Your task to perform on an android device: check google app version Image 0: 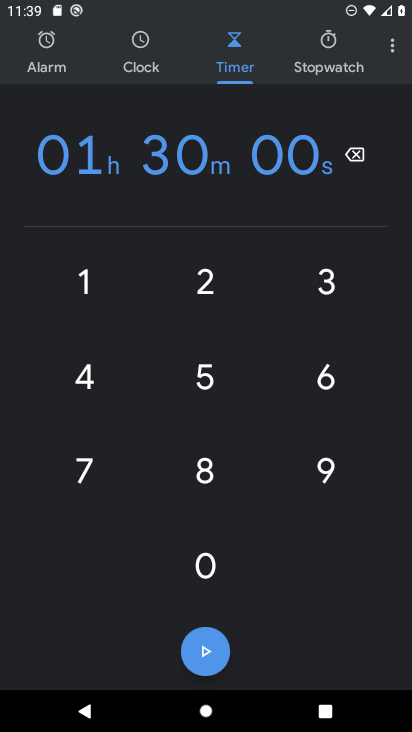
Step 0: press home button
Your task to perform on an android device: check google app version Image 1: 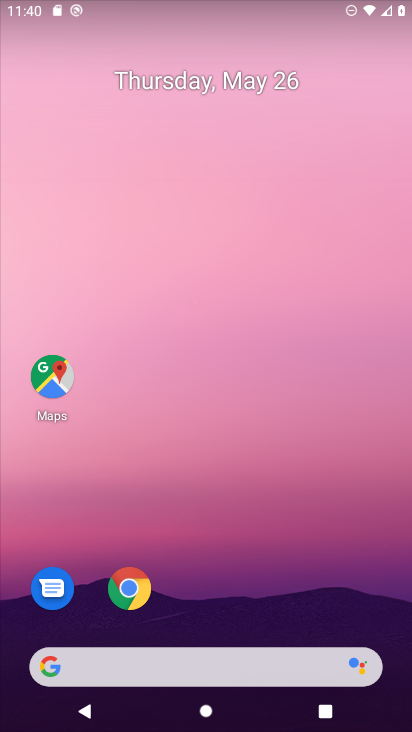
Step 1: click (128, 587)
Your task to perform on an android device: check google app version Image 2: 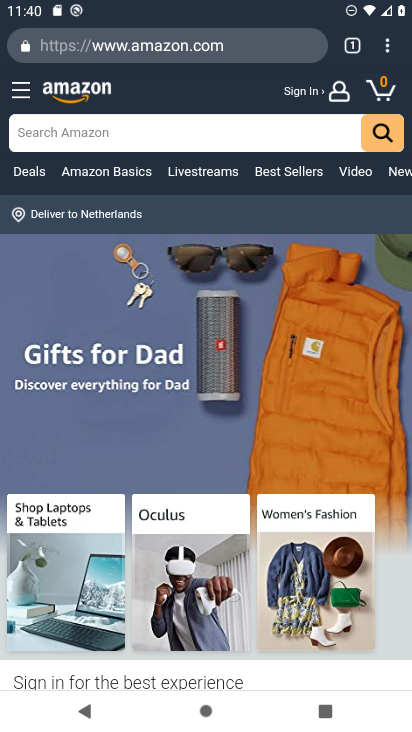
Step 2: click (387, 50)
Your task to perform on an android device: check google app version Image 3: 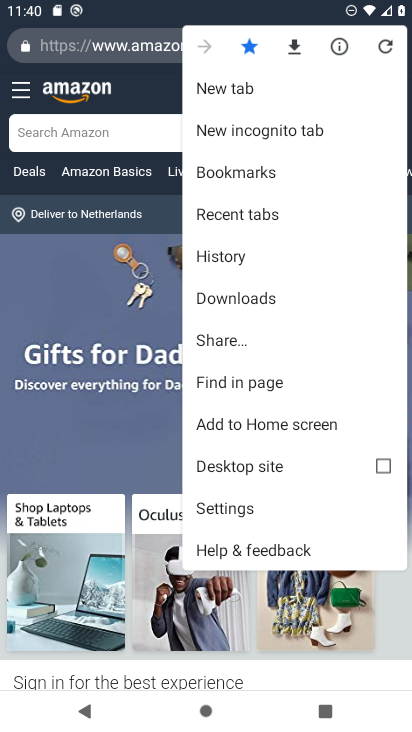
Step 3: click (236, 503)
Your task to perform on an android device: check google app version Image 4: 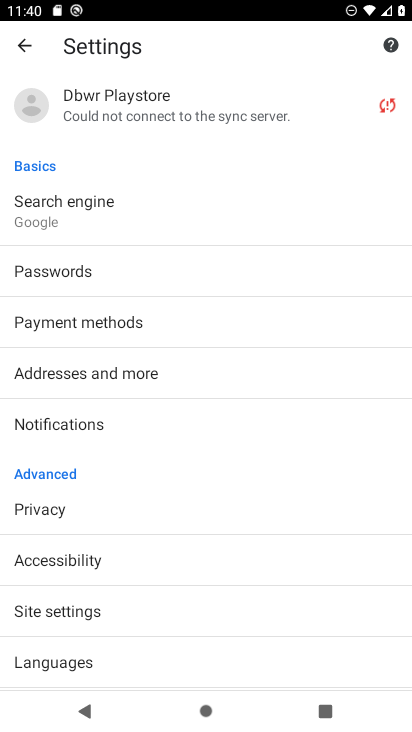
Step 4: drag from (184, 628) to (193, 360)
Your task to perform on an android device: check google app version Image 5: 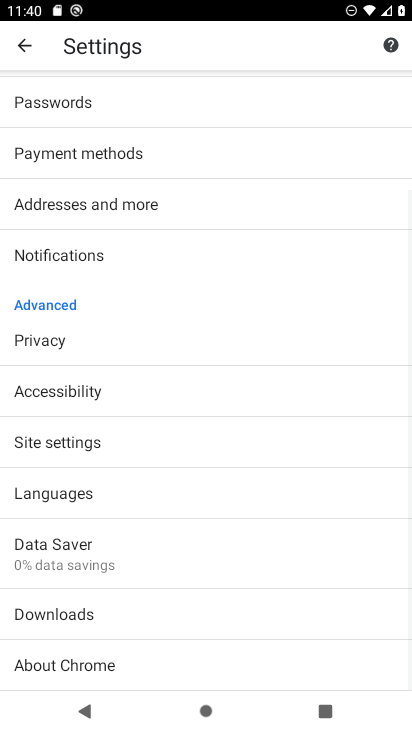
Step 5: click (80, 657)
Your task to perform on an android device: check google app version Image 6: 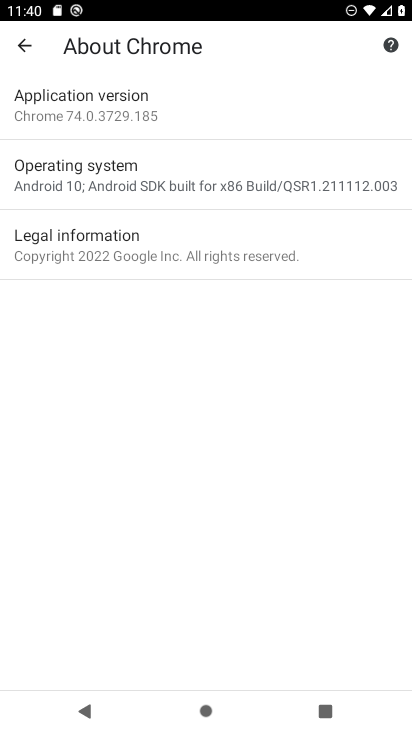
Step 6: click (107, 96)
Your task to perform on an android device: check google app version Image 7: 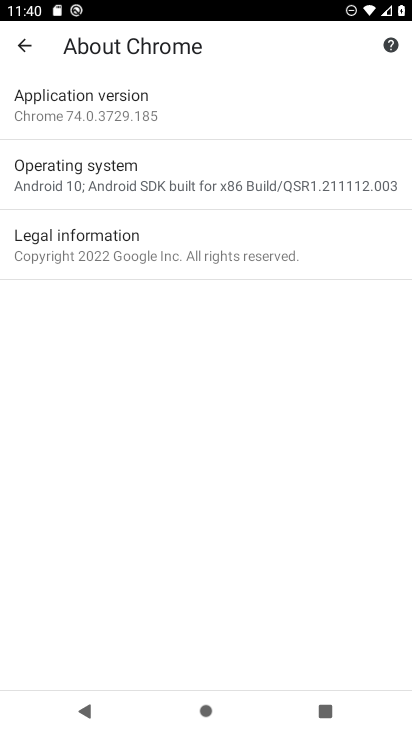
Step 7: task complete